Your task to perform on an android device: find snoozed emails in the gmail app Image 0: 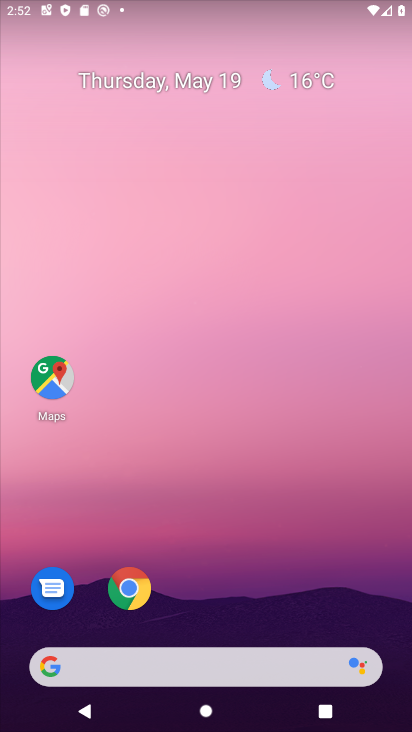
Step 0: drag from (293, 552) to (301, 100)
Your task to perform on an android device: find snoozed emails in the gmail app Image 1: 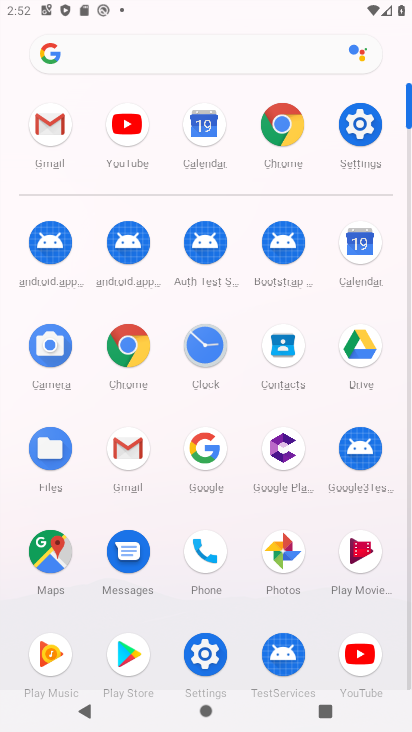
Step 1: click (59, 126)
Your task to perform on an android device: find snoozed emails in the gmail app Image 2: 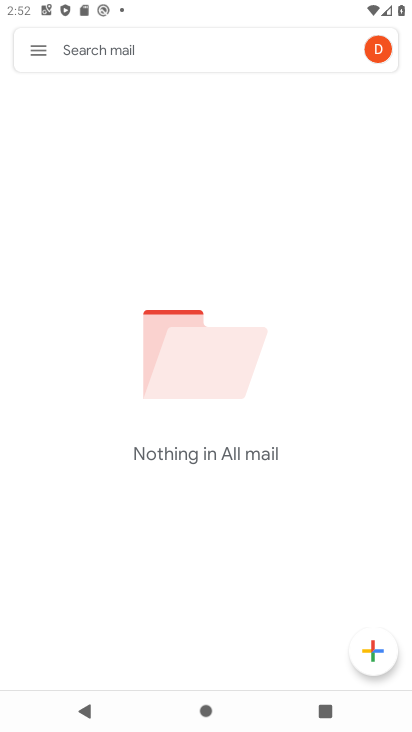
Step 2: task complete